Your task to perform on an android device: Go to settings Image 0: 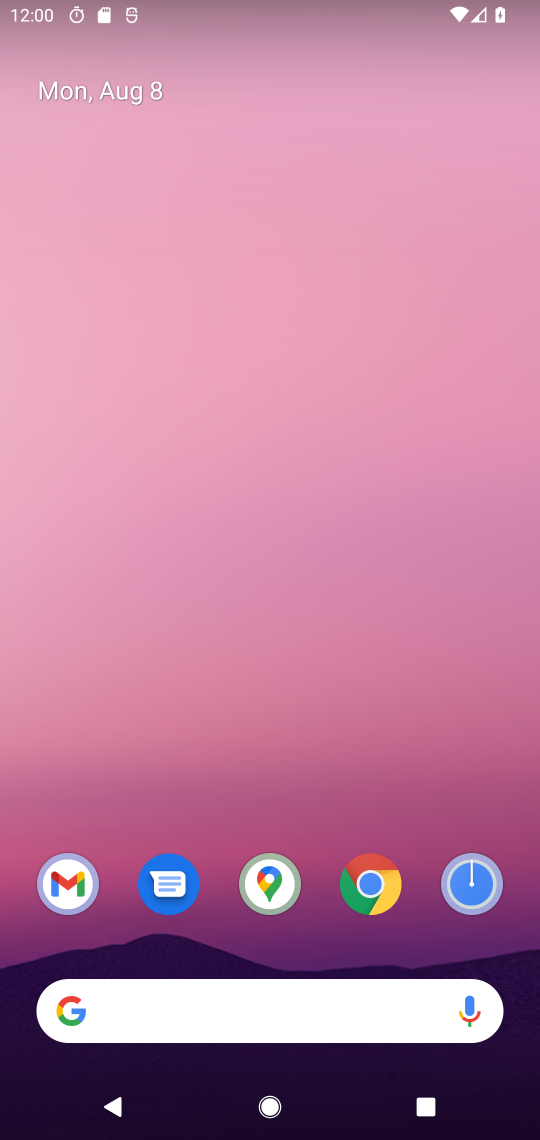
Step 0: drag from (229, 804) to (229, 356)
Your task to perform on an android device: Go to settings Image 1: 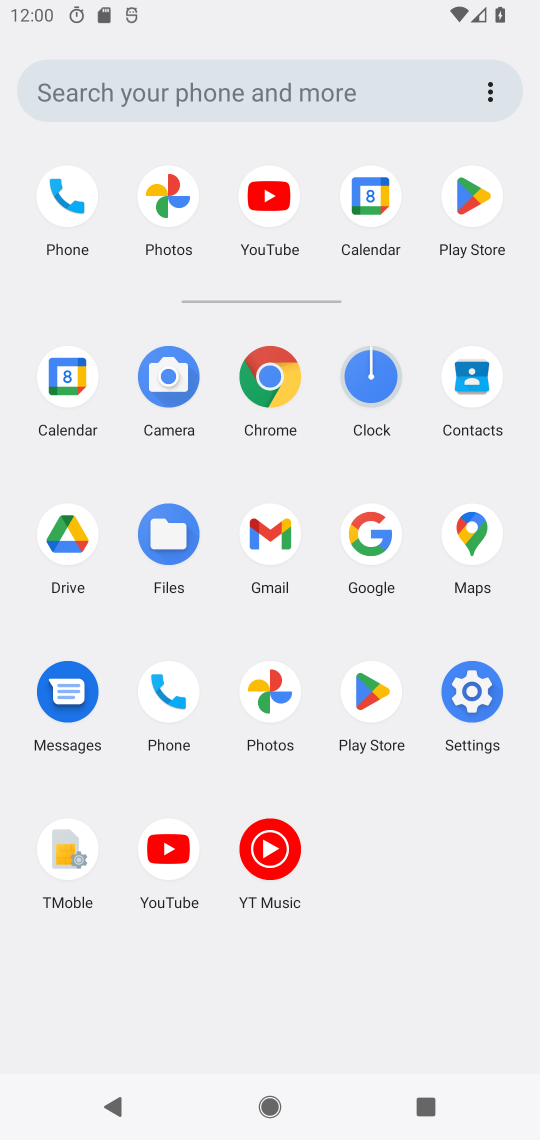
Step 1: click (468, 696)
Your task to perform on an android device: Go to settings Image 2: 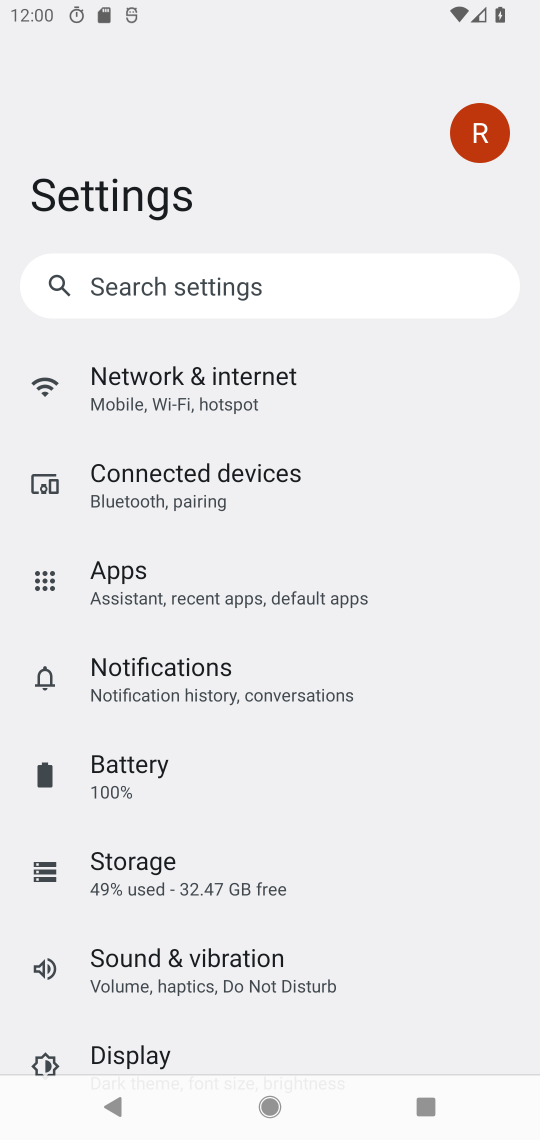
Step 2: task complete